Your task to perform on an android device: toggle sleep mode Image 0: 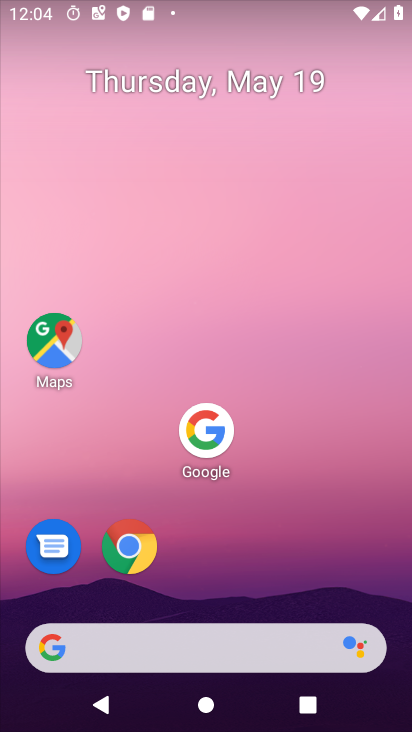
Step 0: drag from (240, 519) to (299, 76)
Your task to perform on an android device: toggle sleep mode Image 1: 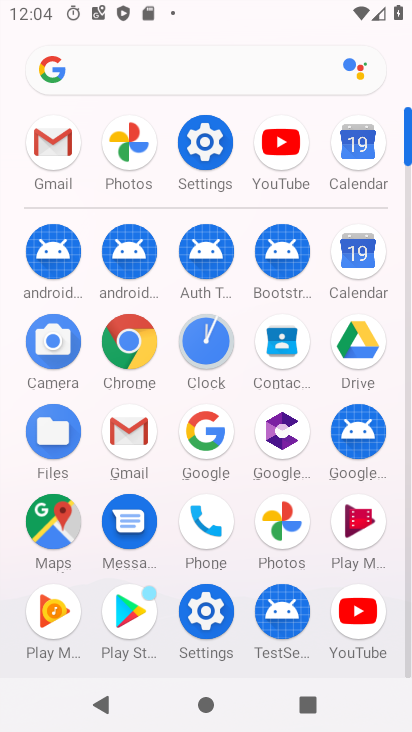
Step 1: click (198, 134)
Your task to perform on an android device: toggle sleep mode Image 2: 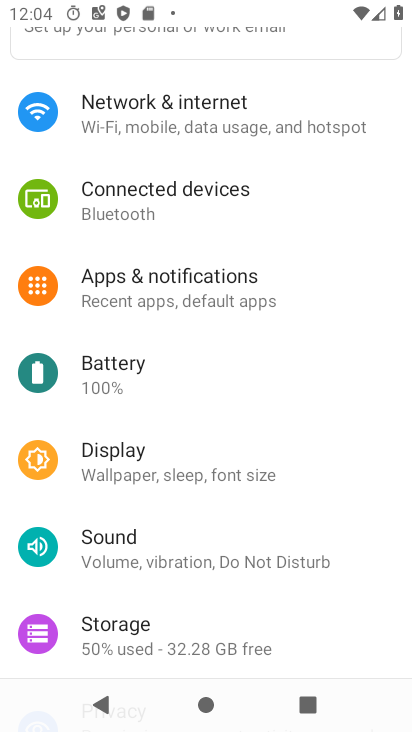
Step 2: click (152, 460)
Your task to perform on an android device: toggle sleep mode Image 3: 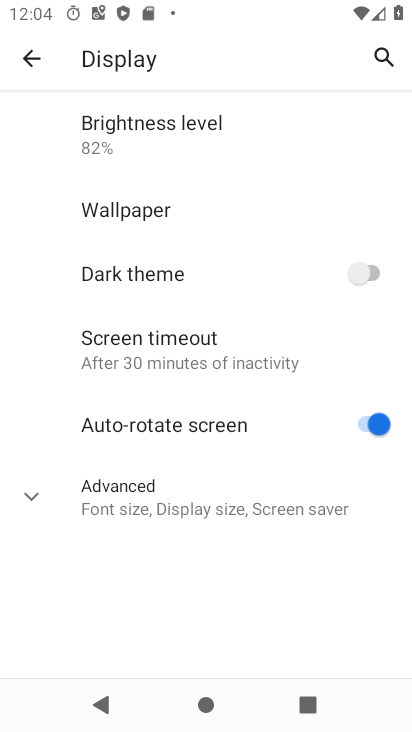
Step 3: click (166, 355)
Your task to perform on an android device: toggle sleep mode Image 4: 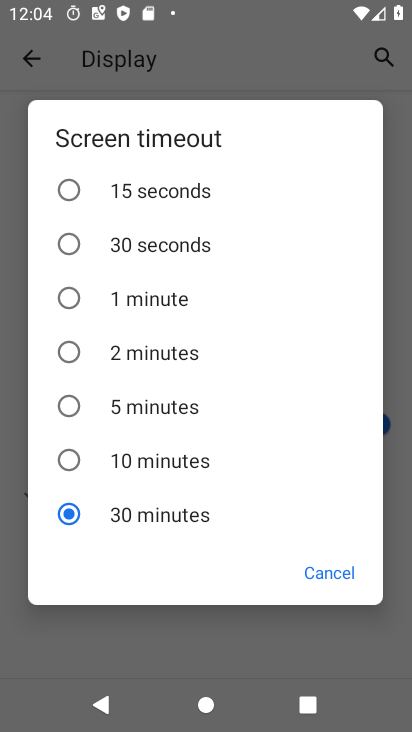
Step 4: click (69, 457)
Your task to perform on an android device: toggle sleep mode Image 5: 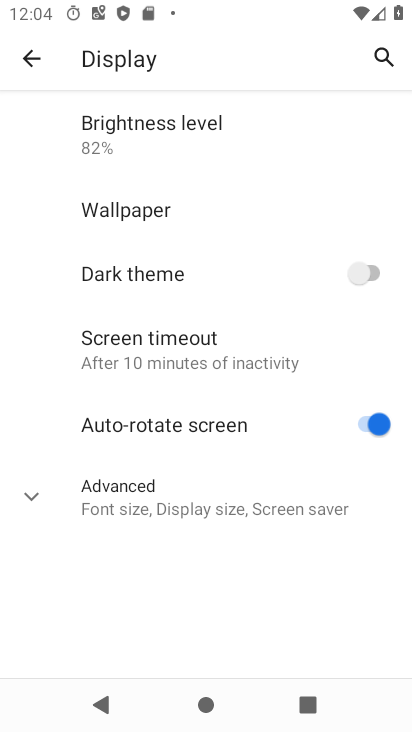
Step 5: task complete